Your task to perform on an android device: change notifications settings Image 0: 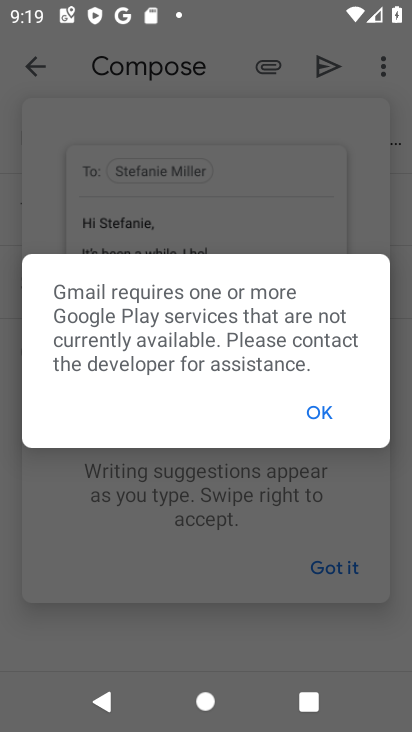
Step 0: press home button
Your task to perform on an android device: change notifications settings Image 1: 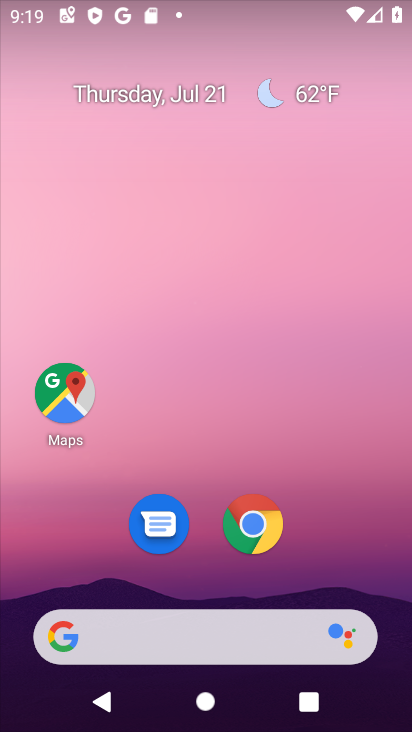
Step 1: drag from (268, 646) to (331, 91)
Your task to perform on an android device: change notifications settings Image 2: 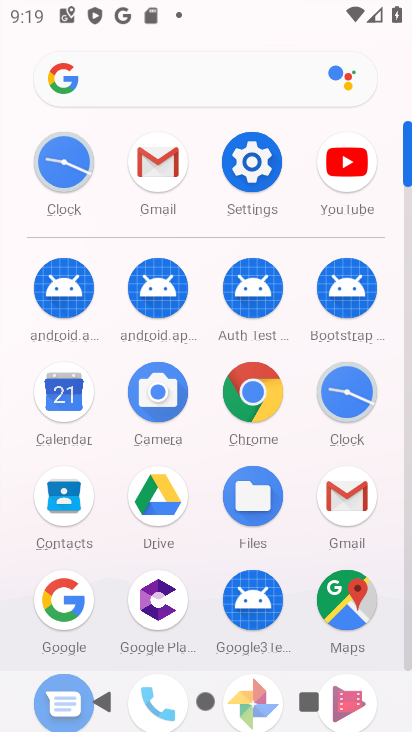
Step 2: click (254, 161)
Your task to perform on an android device: change notifications settings Image 3: 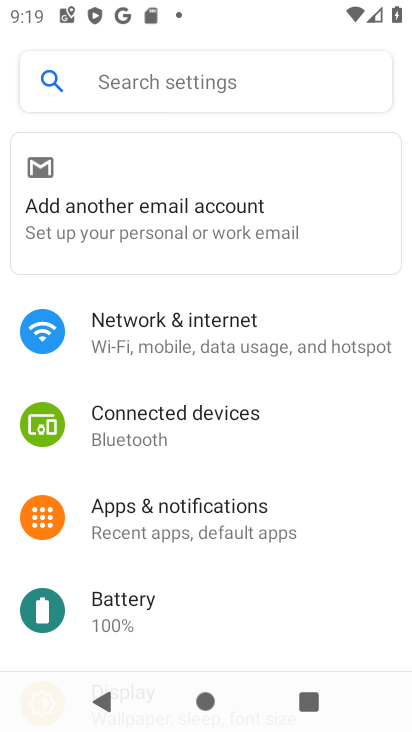
Step 3: click (233, 523)
Your task to perform on an android device: change notifications settings Image 4: 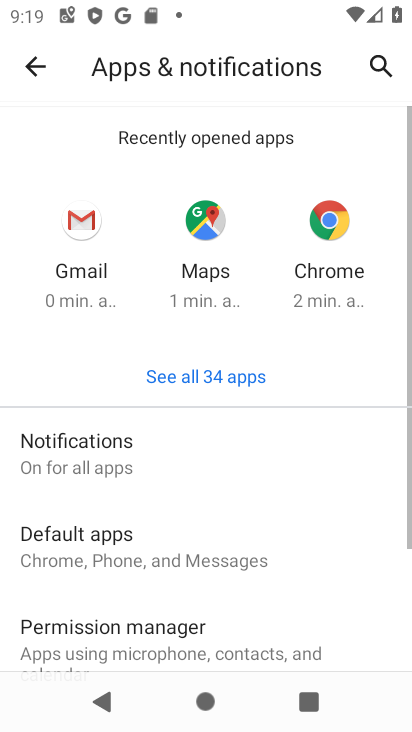
Step 4: click (115, 459)
Your task to perform on an android device: change notifications settings Image 5: 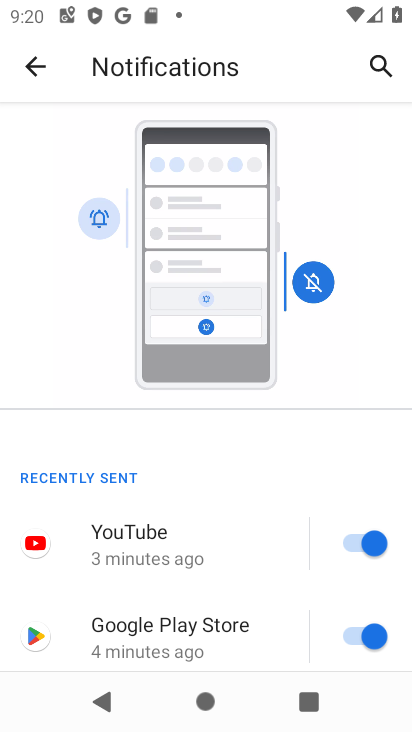
Step 5: drag from (210, 567) to (305, 171)
Your task to perform on an android device: change notifications settings Image 6: 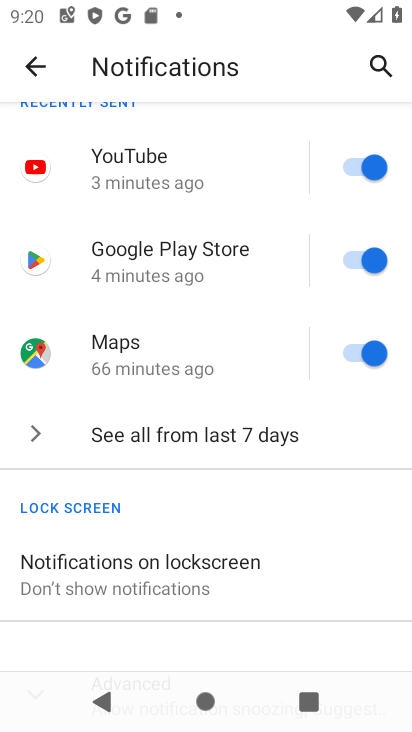
Step 6: click (349, 350)
Your task to perform on an android device: change notifications settings Image 7: 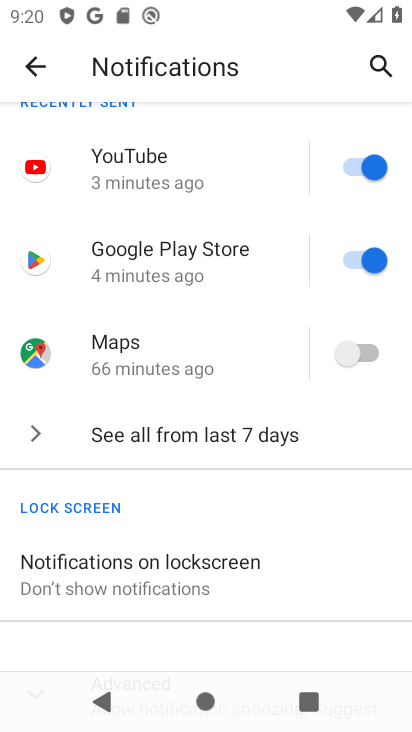
Step 7: task complete